Your task to perform on an android device: uninstall "eBay: The shopping marketplace" Image 0: 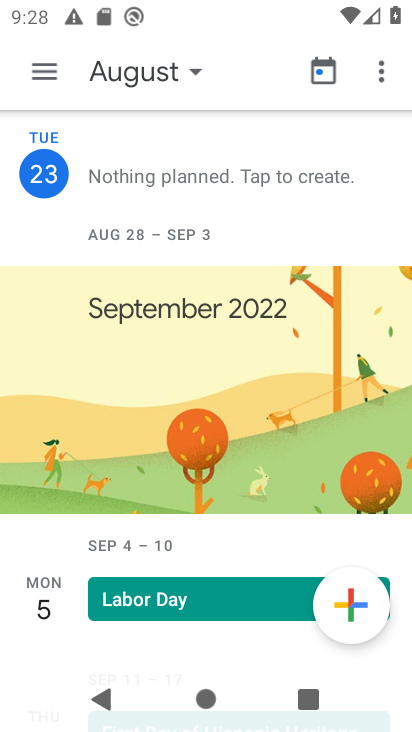
Step 0: press home button
Your task to perform on an android device: uninstall "eBay: The shopping marketplace" Image 1: 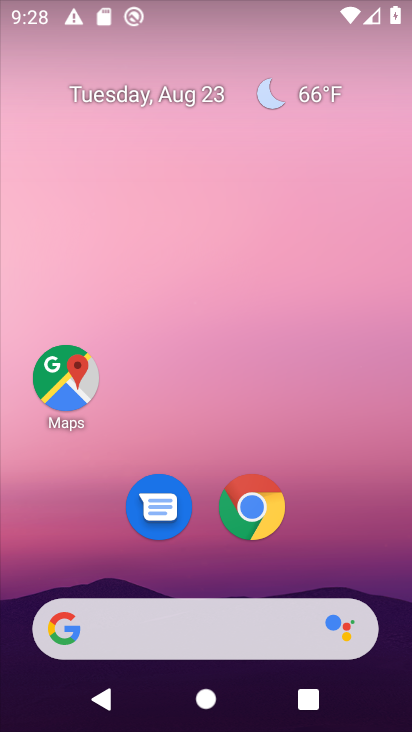
Step 1: drag from (393, 622) to (325, 2)
Your task to perform on an android device: uninstall "eBay: The shopping marketplace" Image 2: 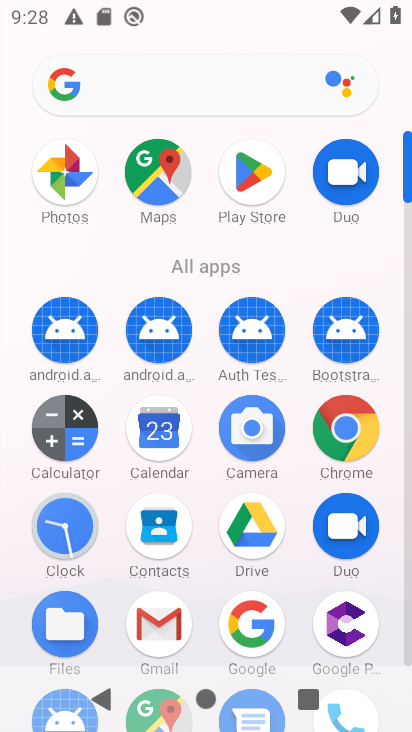
Step 2: click (408, 617)
Your task to perform on an android device: uninstall "eBay: The shopping marketplace" Image 3: 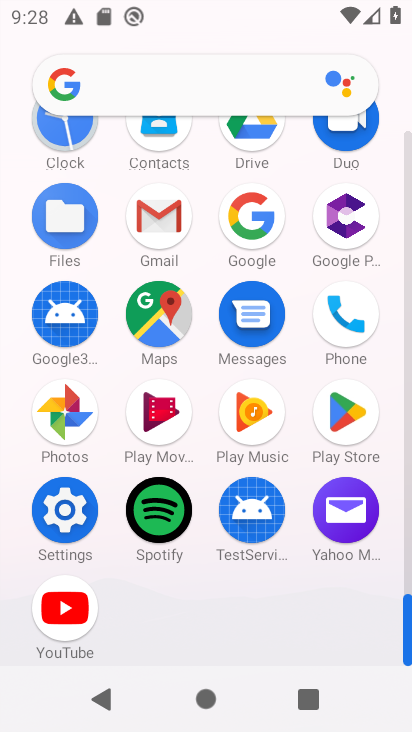
Step 3: click (350, 413)
Your task to perform on an android device: uninstall "eBay: The shopping marketplace" Image 4: 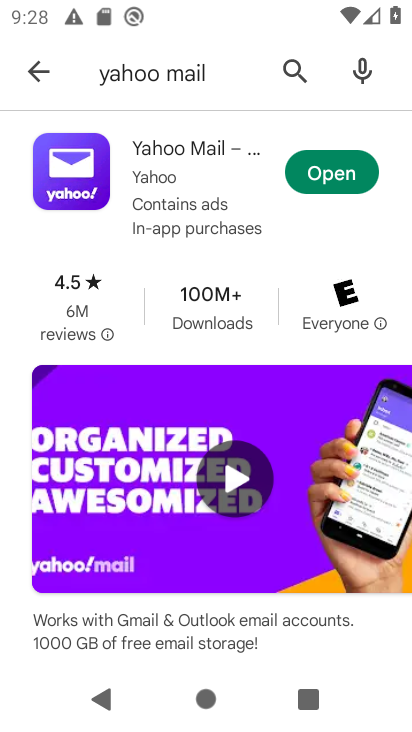
Step 4: click (291, 58)
Your task to perform on an android device: uninstall "eBay: The shopping marketplace" Image 5: 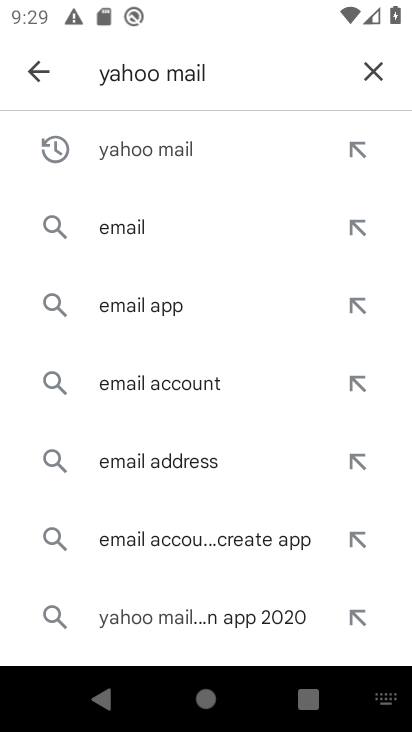
Step 5: click (376, 71)
Your task to perform on an android device: uninstall "eBay: The shopping marketplace" Image 6: 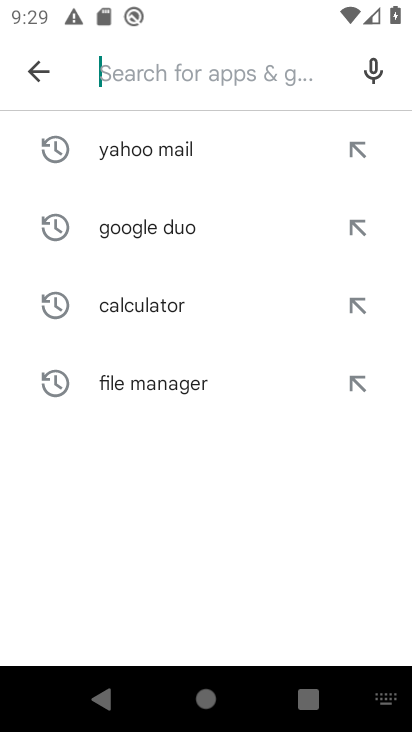
Step 6: type ""
Your task to perform on an android device: uninstall "eBay: The shopping marketplace" Image 7: 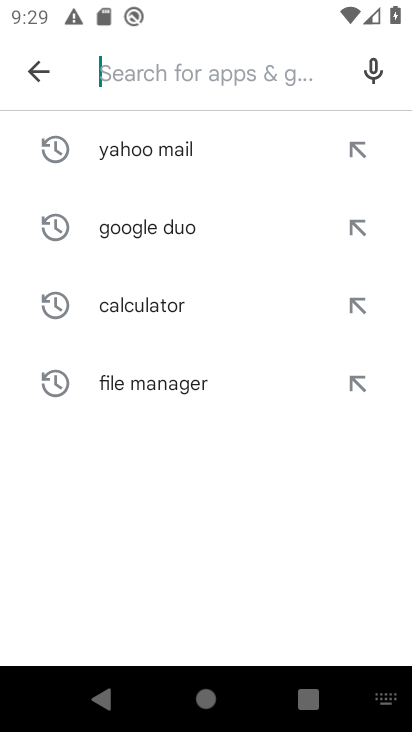
Step 7: type "eBay: The shopping marketplace"
Your task to perform on an android device: uninstall "eBay: The shopping marketplace" Image 8: 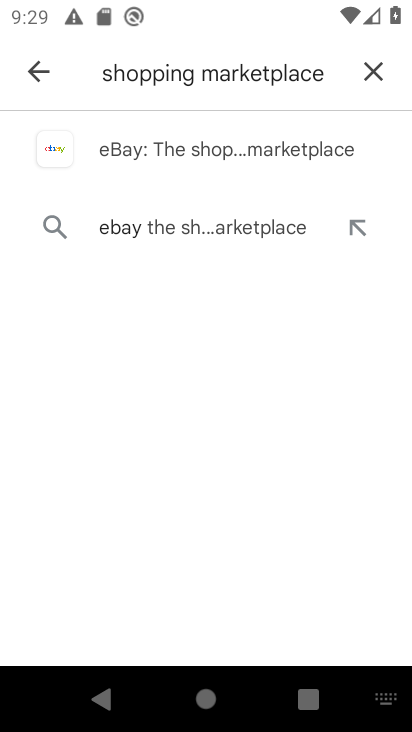
Step 8: click (220, 149)
Your task to perform on an android device: uninstall "eBay: The shopping marketplace" Image 9: 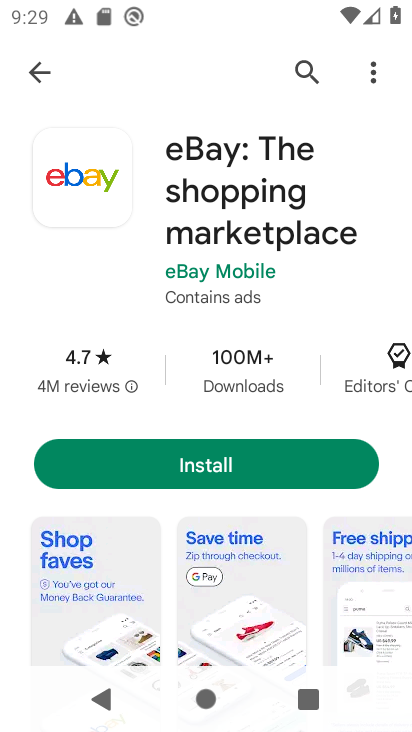
Step 9: click (218, 468)
Your task to perform on an android device: uninstall "eBay: The shopping marketplace" Image 10: 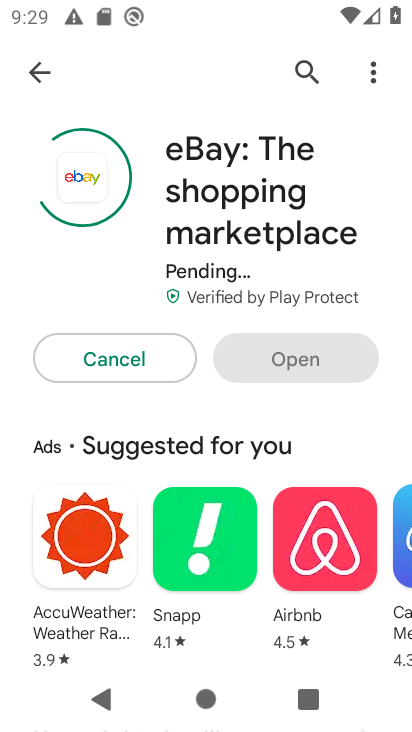
Step 10: click (113, 343)
Your task to perform on an android device: uninstall "eBay: The shopping marketplace" Image 11: 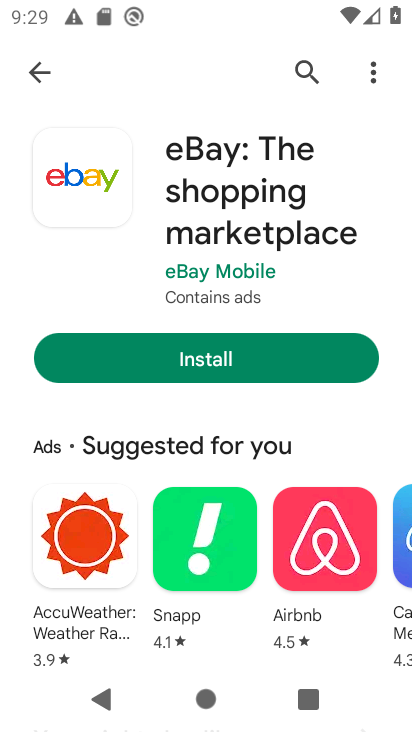
Step 11: task complete